Your task to perform on an android device: turn on wifi Image 0: 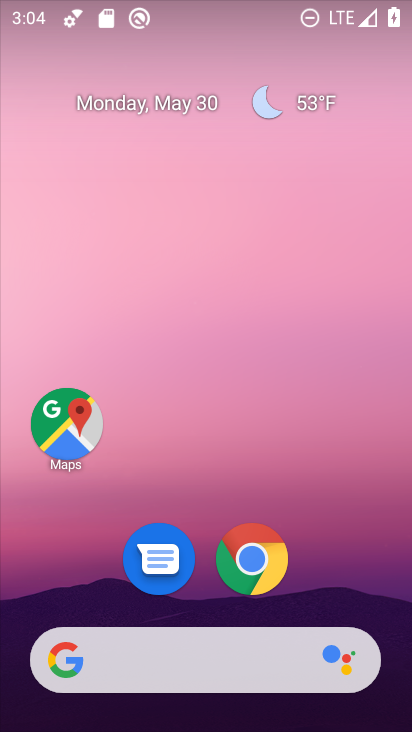
Step 0: drag from (70, 619) to (204, 138)
Your task to perform on an android device: turn on wifi Image 1: 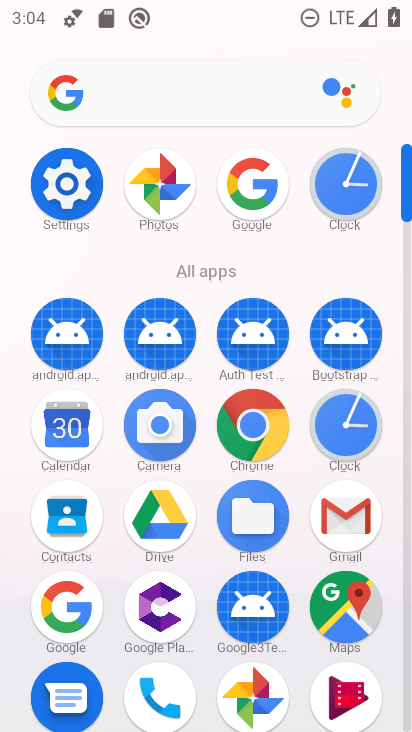
Step 1: drag from (59, 601) to (158, 332)
Your task to perform on an android device: turn on wifi Image 2: 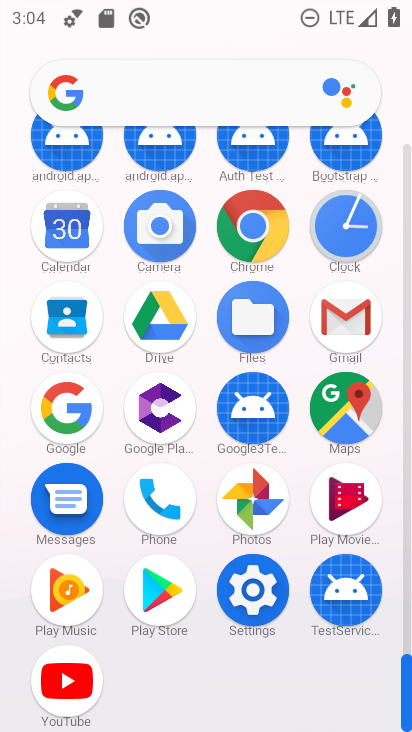
Step 2: click (230, 582)
Your task to perform on an android device: turn on wifi Image 3: 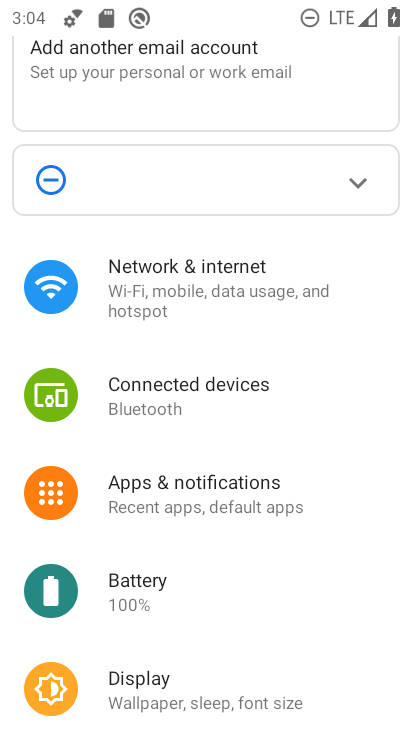
Step 3: click (297, 274)
Your task to perform on an android device: turn on wifi Image 4: 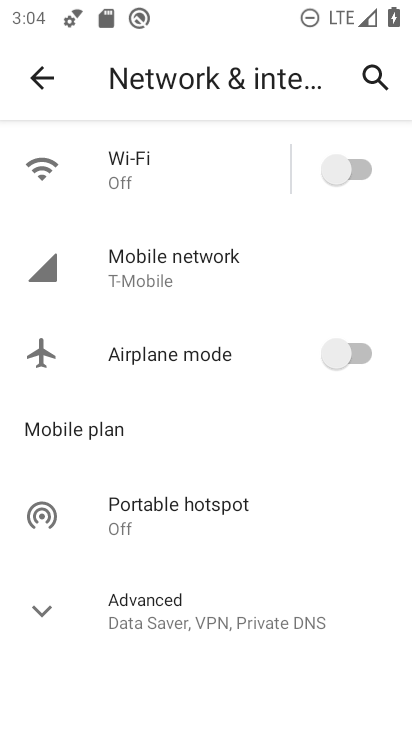
Step 4: click (381, 173)
Your task to perform on an android device: turn on wifi Image 5: 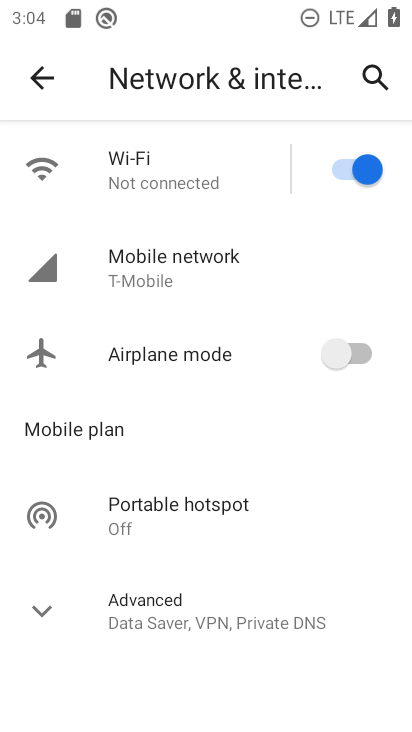
Step 5: task complete